Your task to perform on an android device: What's the weather? Image 0: 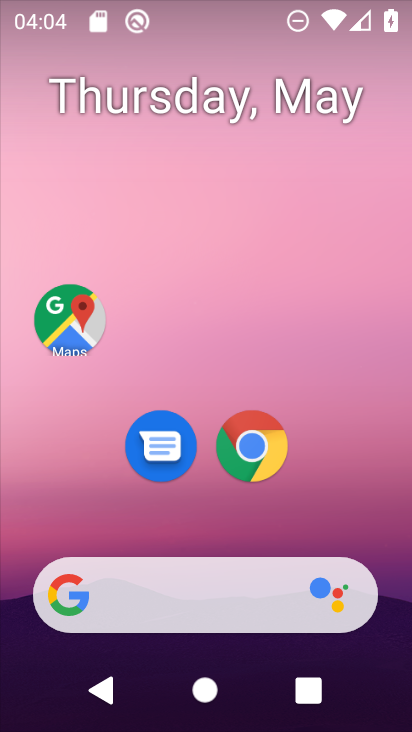
Step 0: click (110, 598)
Your task to perform on an android device: What's the weather? Image 1: 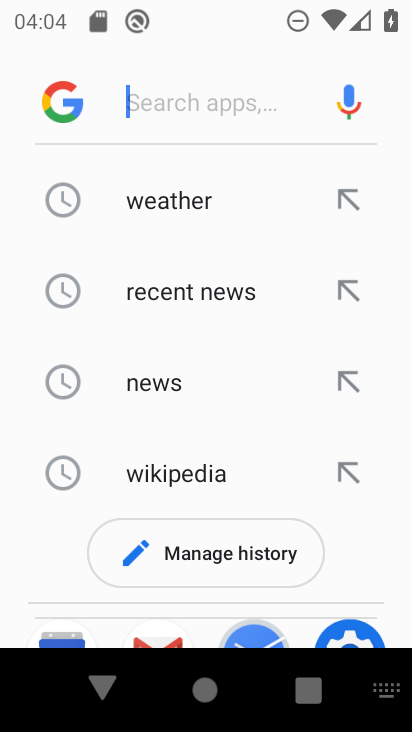
Step 1: click (161, 208)
Your task to perform on an android device: What's the weather? Image 2: 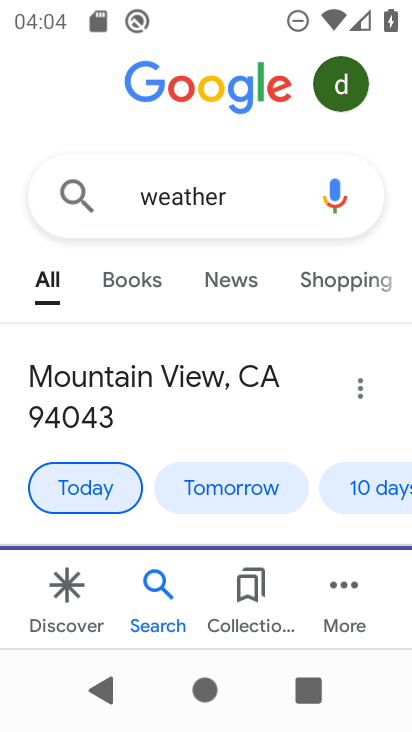
Step 2: task complete